Your task to perform on an android device: Show me productivity apps on the Play Store Image 0: 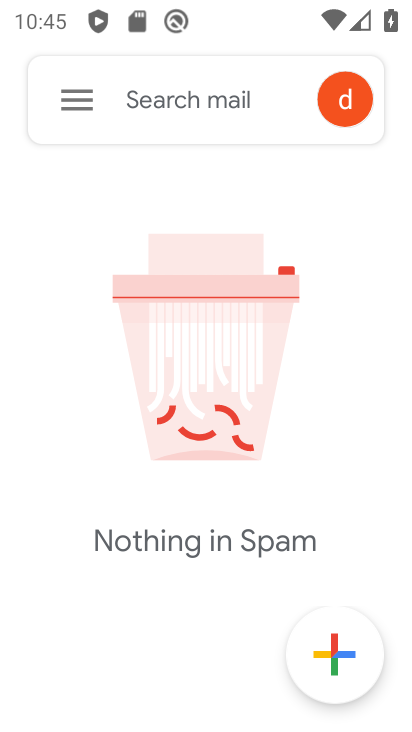
Step 0: press home button
Your task to perform on an android device: Show me productivity apps on the Play Store Image 1: 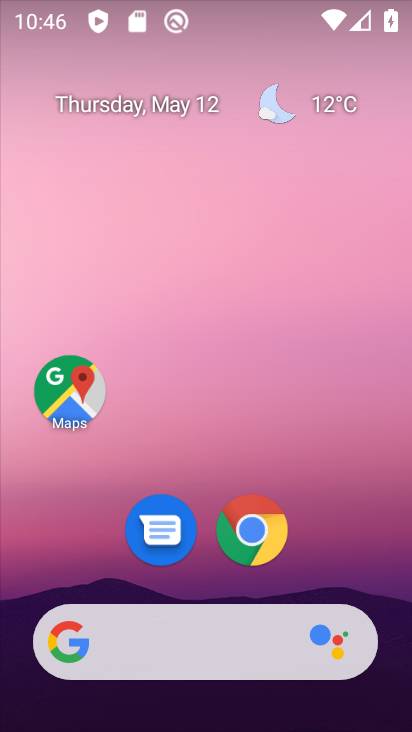
Step 1: drag from (174, 643) to (279, 210)
Your task to perform on an android device: Show me productivity apps on the Play Store Image 2: 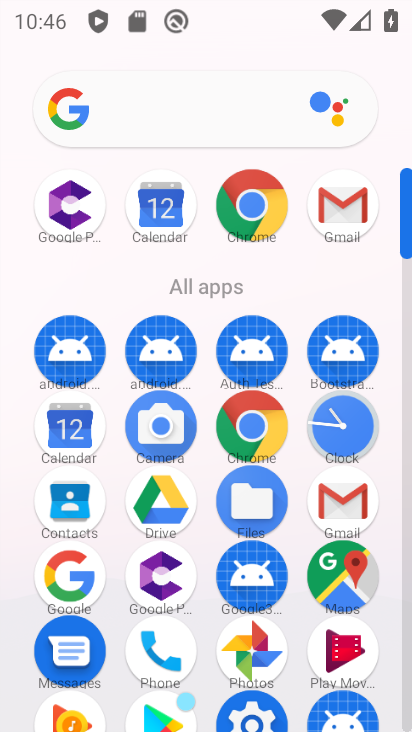
Step 2: drag from (198, 670) to (318, 250)
Your task to perform on an android device: Show me productivity apps on the Play Store Image 3: 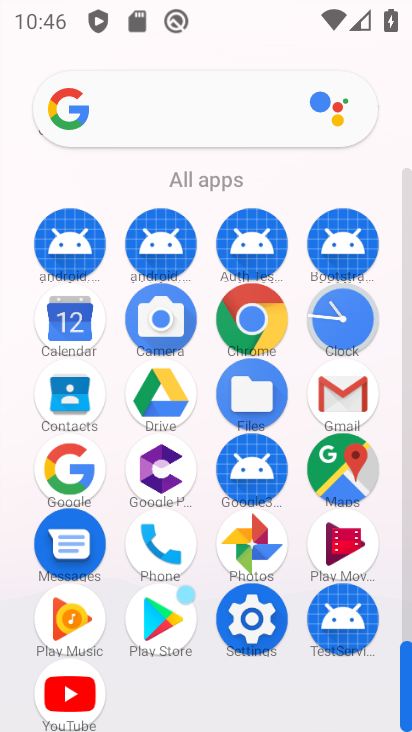
Step 3: click (163, 628)
Your task to perform on an android device: Show me productivity apps on the Play Store Image 4: 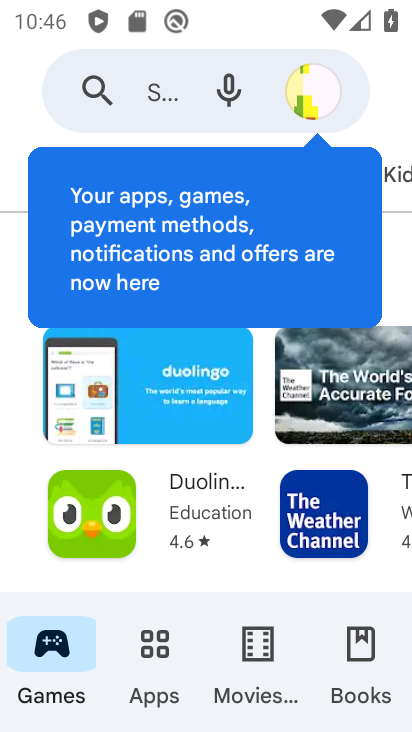
Step 4: click (154, 642)
Your task to perform on an android device: Show me productivity apps on the Play Store Image 5: 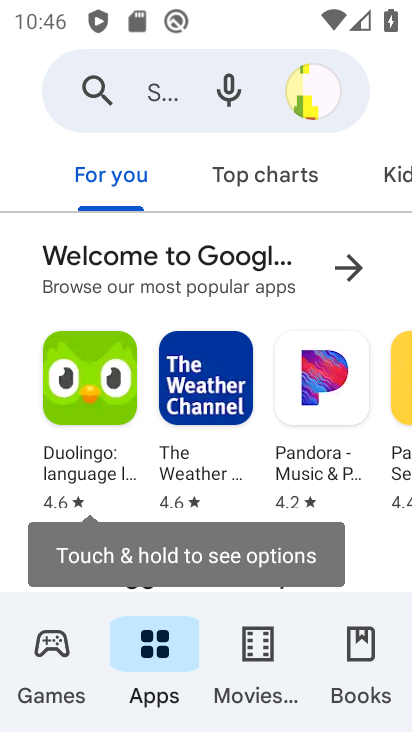
Step 5: drag from (354, 191) to (121, 173)
Your task to perform on an android device: Show me productivity apps on the Play Store Image 6: 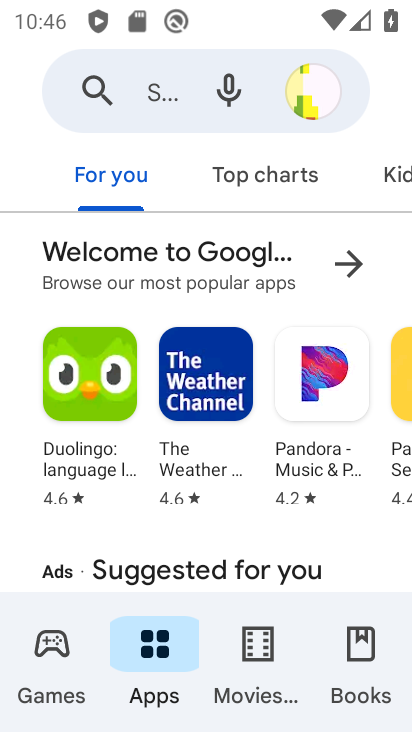
Step 6: drag from (373, 168) to (82, 165)
Your task to perform on an android device: Show me productivity apps on the Play Store Image 7: 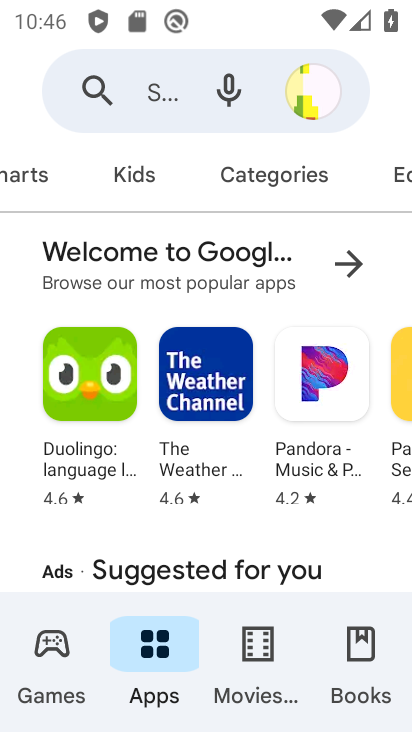
Step 7: click (273, 175)
Your task to perform on an android device: Show me productivity apps on the Play Store Image 8: 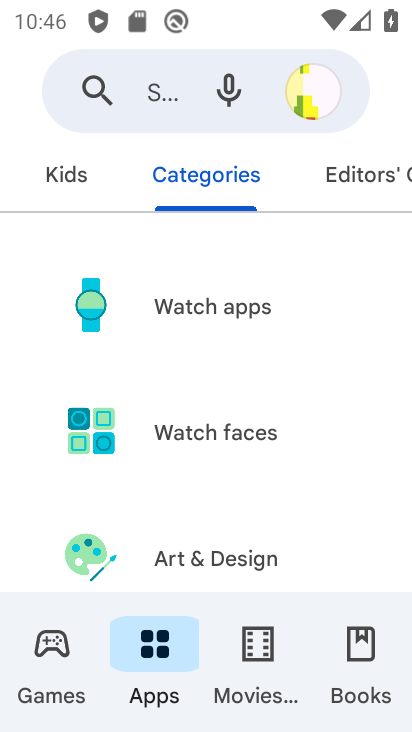
Step 8: drag from (192, 572) to (351, 209)
Your task to perform on an android device: Show me productivity apps on the Play Store Image 9: 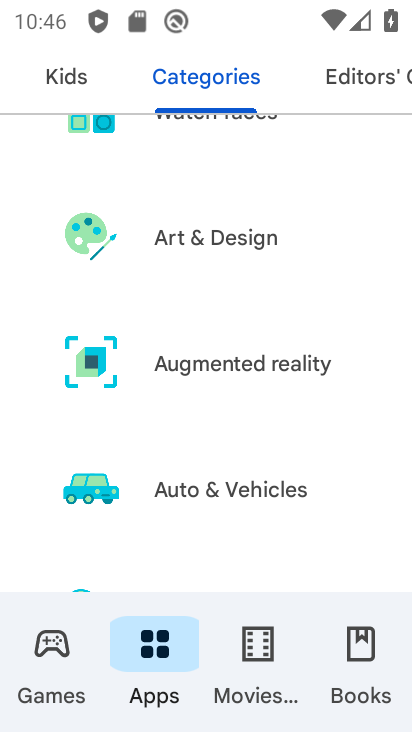
Step 9: drag from (220, 548) to (322, 202)
Your task to perform on an android device: Show me productivity apps on the Play Store Image 10: 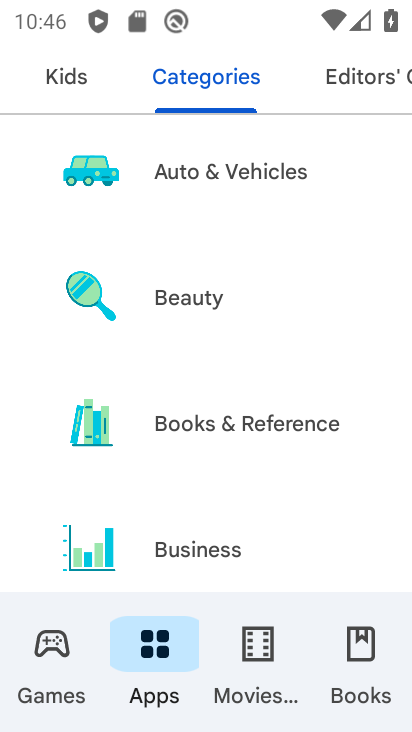
Step 10: drag from (253, 546) to (364, 134)
Your task to perform on an android device: Show me productivity apps on the Play Store Image 11: 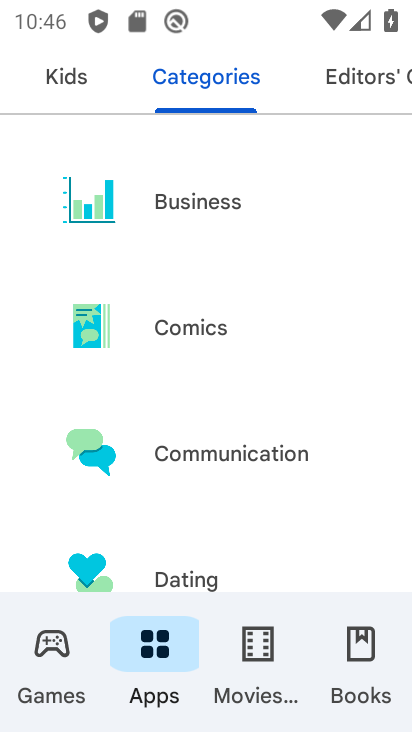
Step 11: drag from (270, 486) to (320, 116)
Your task to perform on an android device: Show me productivity apps on the Play Store Image 12: 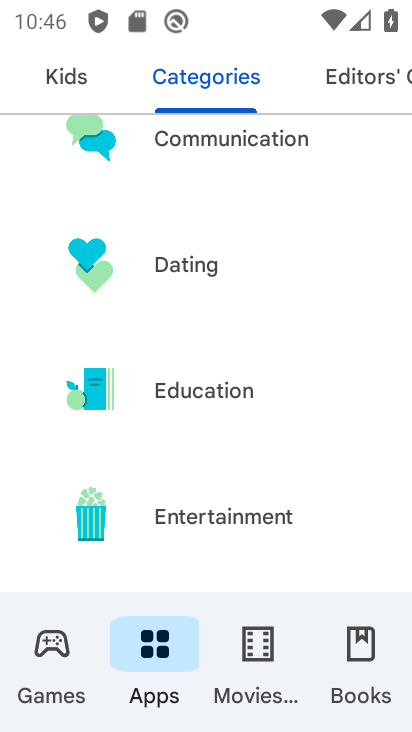
Step 12: drag from (248, 559) to (307, 119)
Your task to perform on an android device: Show me productivity apps on the Play Store Image 13: 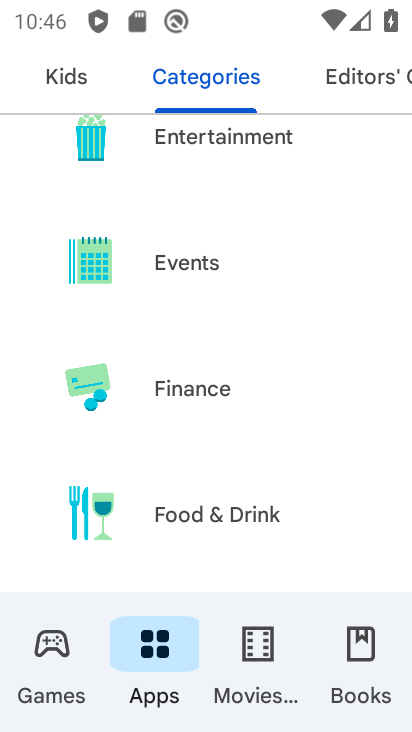
Step 13: drag from (263, 552) to (322, 138)
Your task to perform on an android device: Show me productivity apps on the Play Store Image 14: 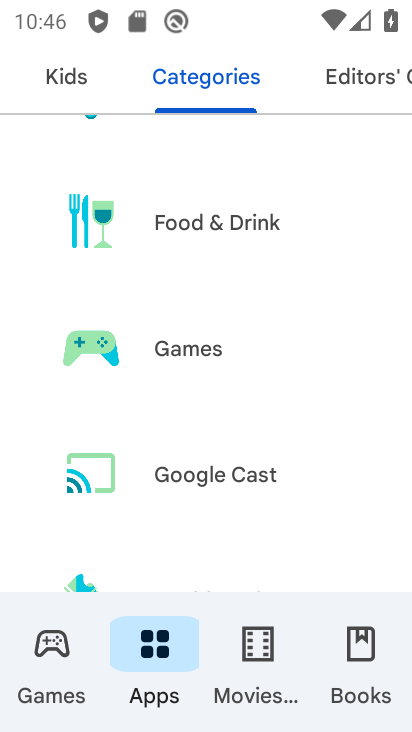
Step 14: drag from (238, 542) to (319, 119)
Your task to perform on an android device: Show me productivity apps on the Play Store Image 15: 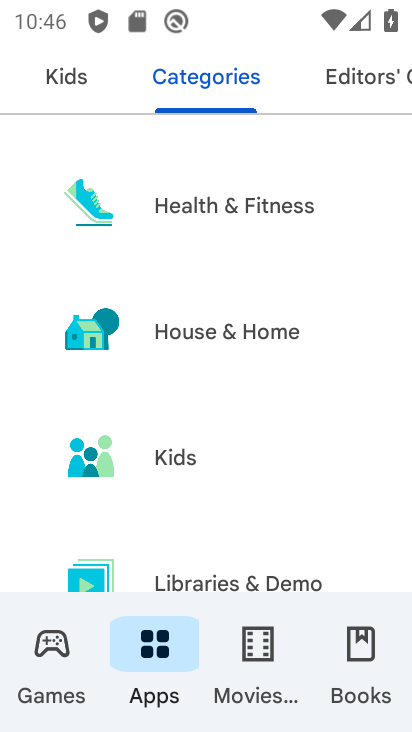
Step 15: drag from (216, 542) to (373, 145)
Your task to perform on an android device: Show me productivity apps on the Play Store Image 16: 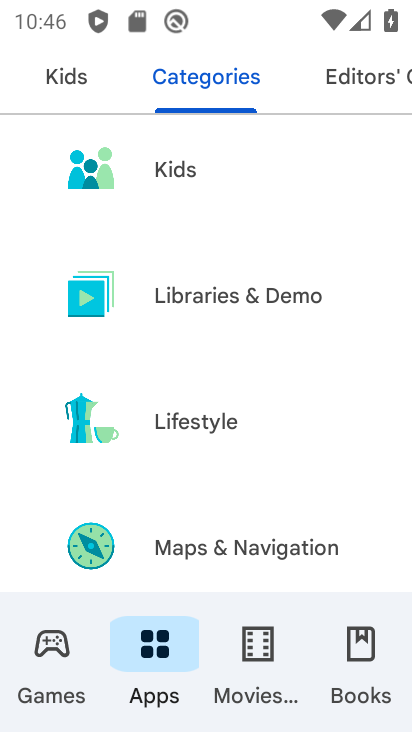
Step 16: drag from (236, 507) to (350, 146)
Your task to perform on an android device: Show me productivity apps on the Play Store Image 17: 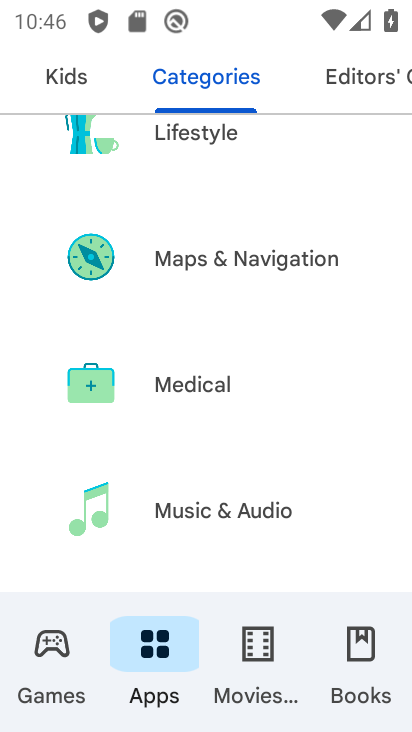
Step 17: drag from (237, 575) to (327, 159)
Your task to perform on an android device: Show me productivity apps on the Play Store Image 18: 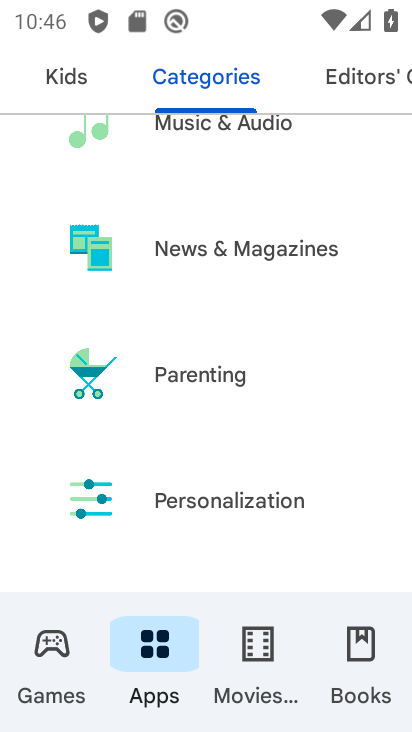
Step 18: drag from (202, 566) to (306, 257)
Your task to perform on an android device: Show me productivity apps on the Play Store Image 19: 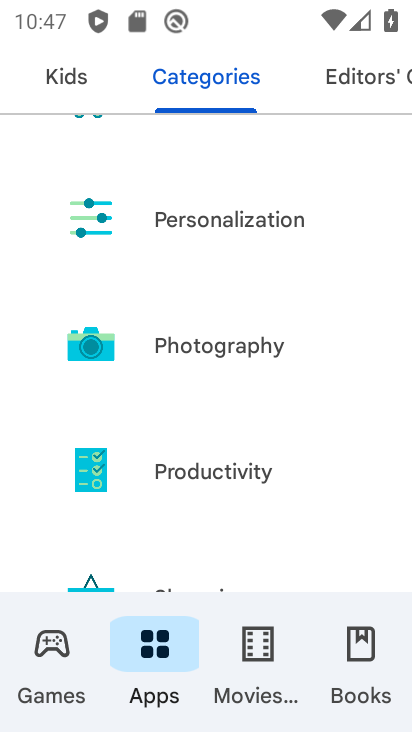
Step 19: click (214, 472)
Your task to perform on an android device: Show me productivity apps on the Play Store Image 20: 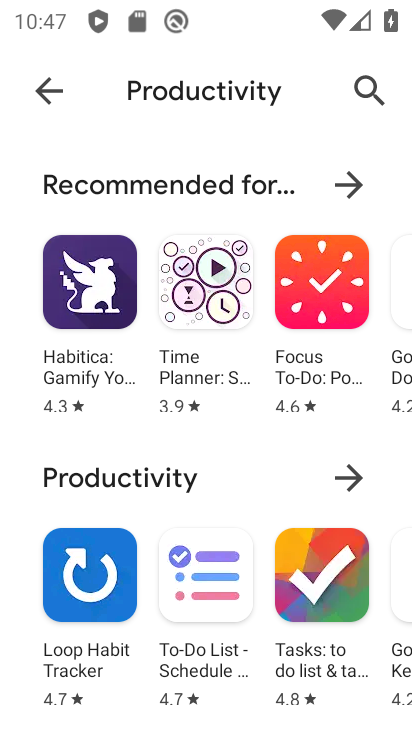
Step 20: task complete